Your task to perform on an android device: Open the phone app and click the voicemail tab. Image 0: 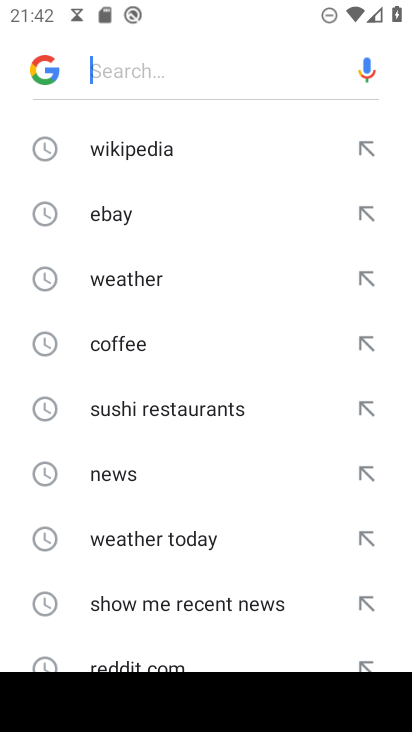
Step 0: press home button
Your task to perform on an android device: Open the phone app and click the voicemail tab. Image 1: 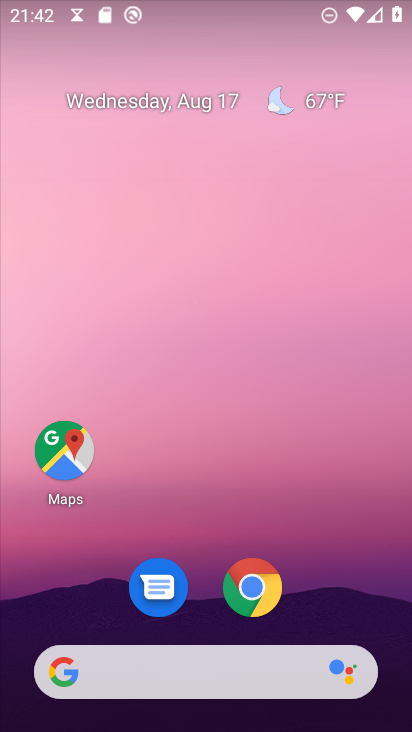
Step 1: drag from (18, 710) to (266, 260)
Your task to perform on an android device: Open the phone app and click the voicemail tab. Image 2: 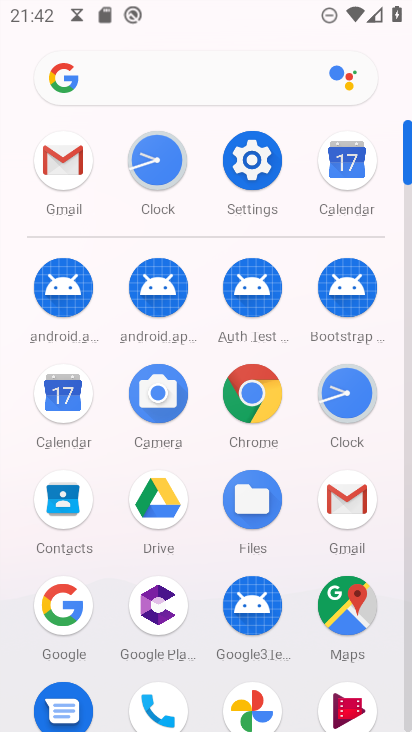
Step 2: click (149, 702)
Your task to perform on an android device: Open the phone app and click the voicemail tab. Image 3: 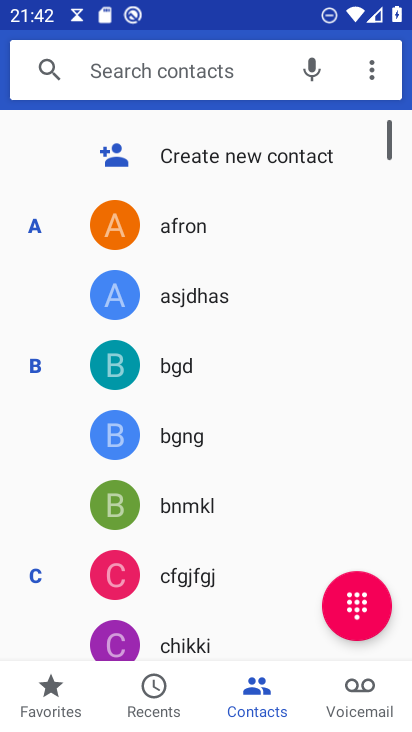
Step 3: click (370, 696)
Your task to perform on an android device: Open the phone app and click the voicemail tab. Image 4: 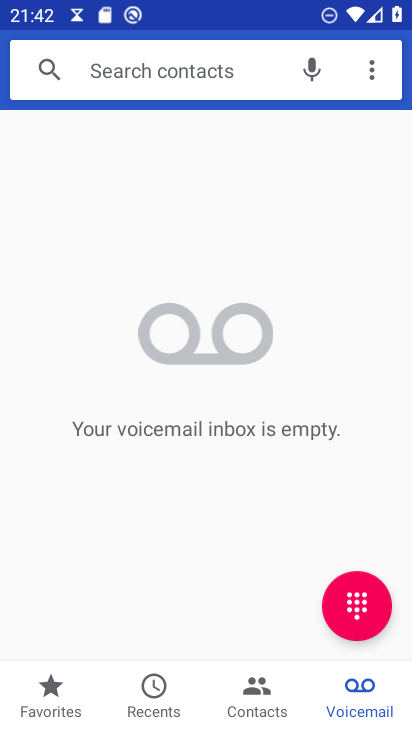
Step 4: task complete